Your task to perform on an android device: Open ESPN.com Image 0: 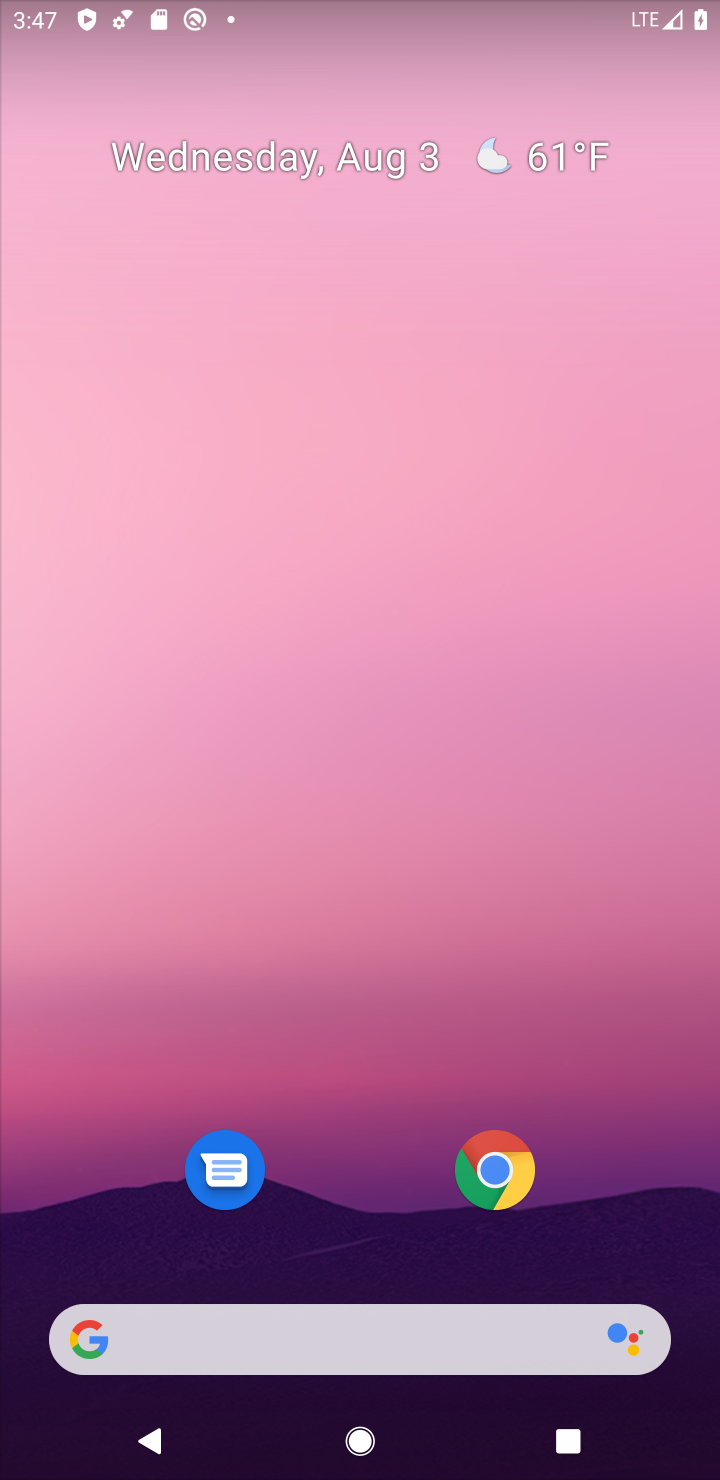
Step 0: press back button
Your task to perform on an android device: Open ESPN.com Image 1: 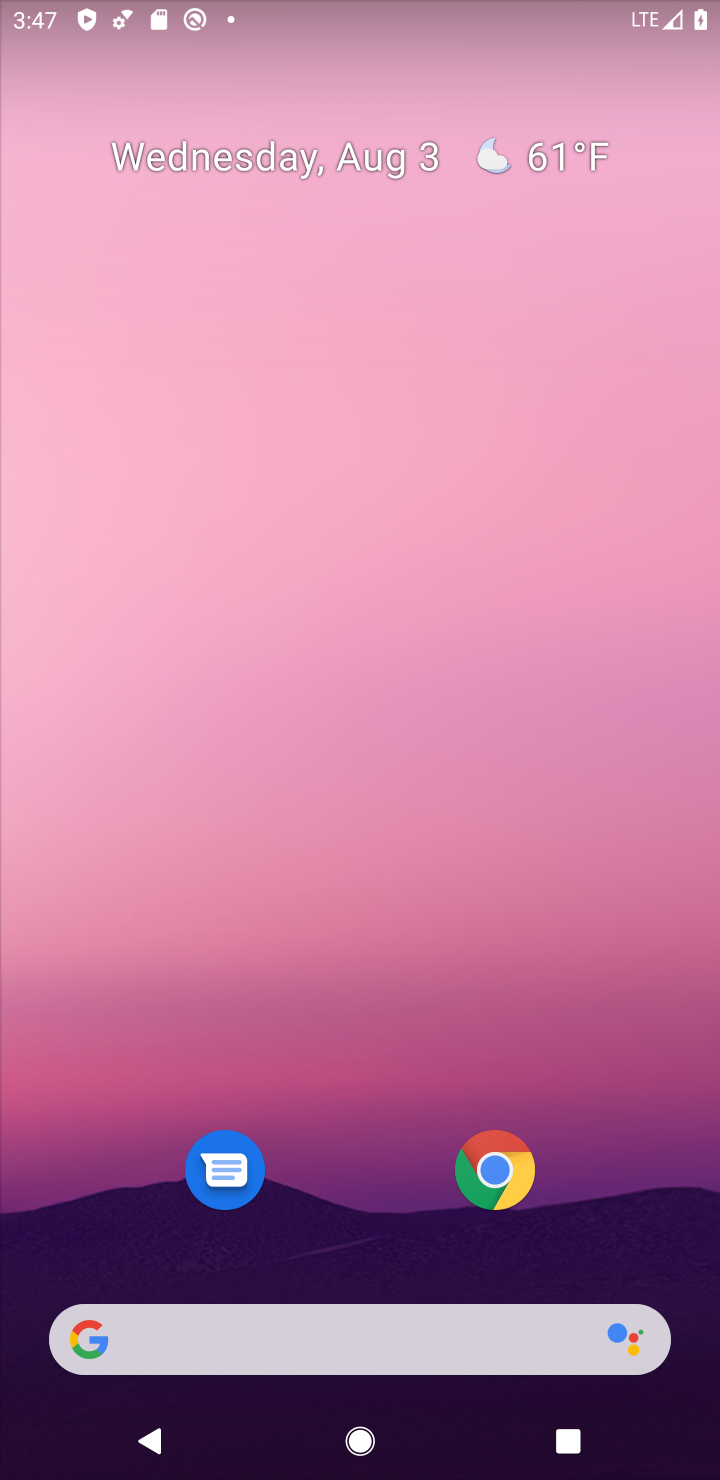
Step 1: click (516, 1161)
Your task to perform on an android device: Open ESPN.com Image 2: 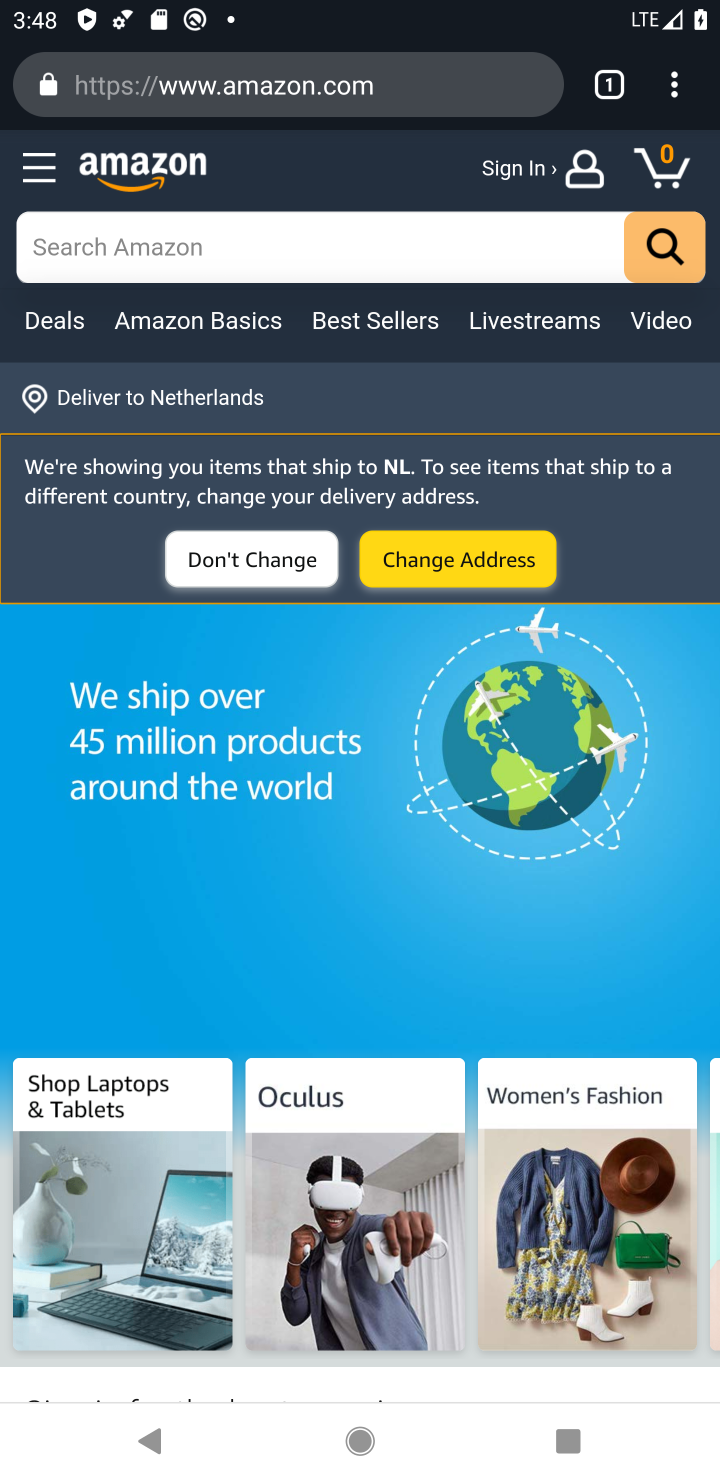
Step 2: press back button
Your task to perform on an android device: Open ESPN.com Image 3: 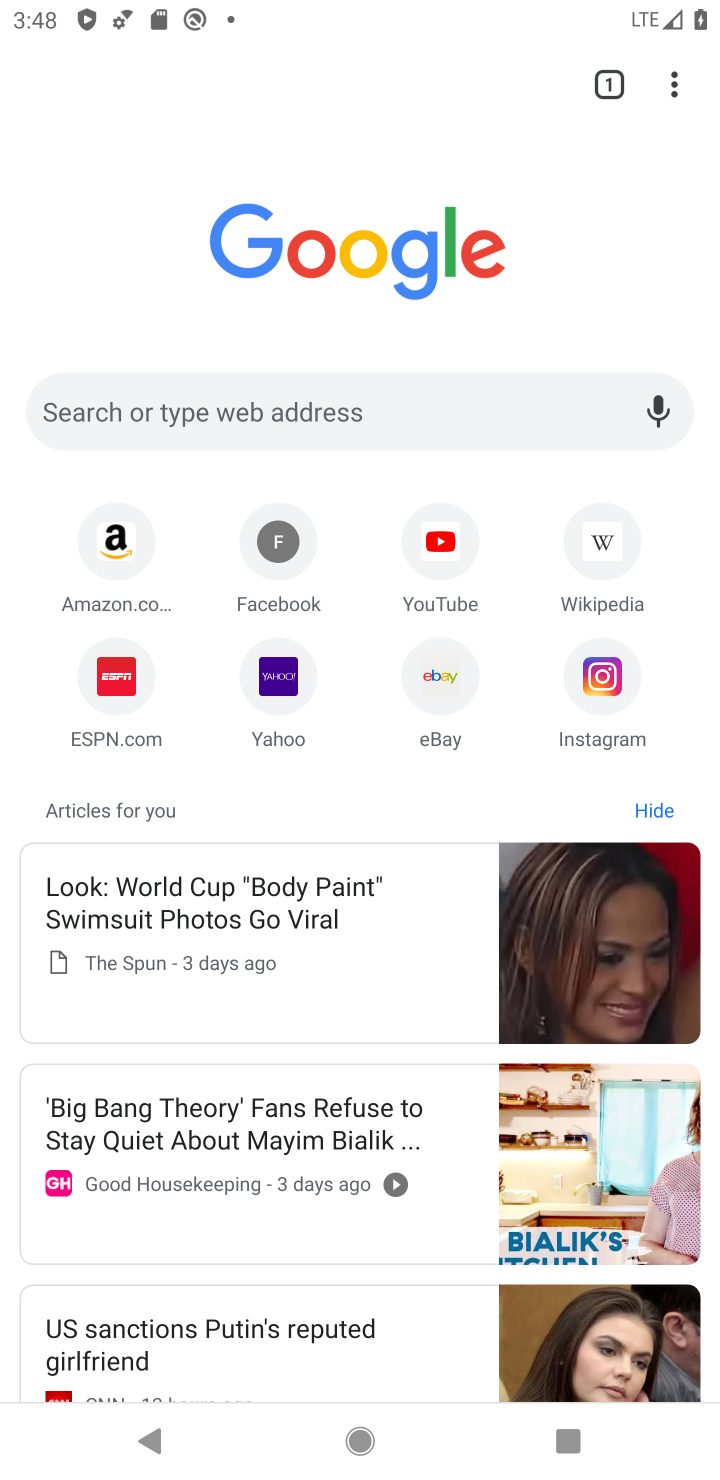
Step 3: click (99, 703)
Your task to perform on an android device: Open ESPN.com Image 4: 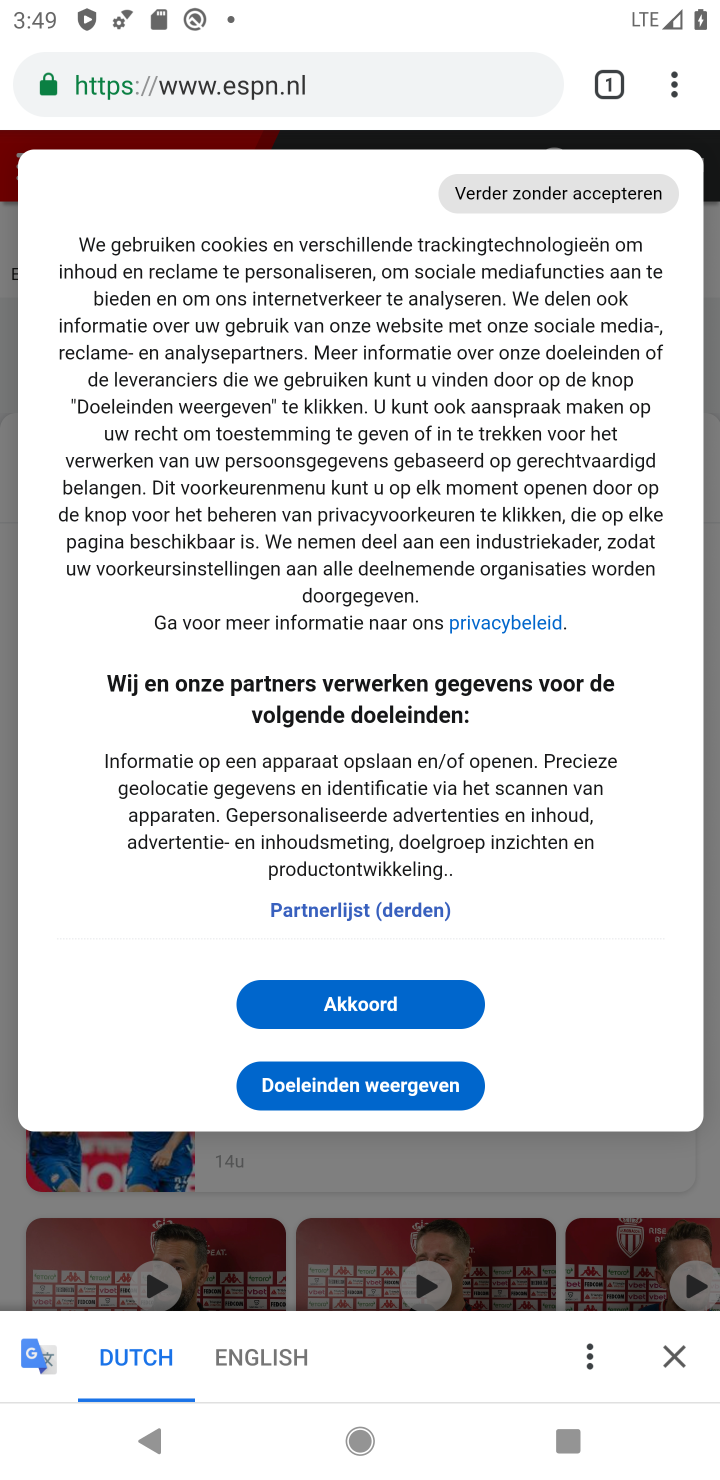
Step 4: task complete